Your task to perform on an android device: change the clock display to digital Image 0: 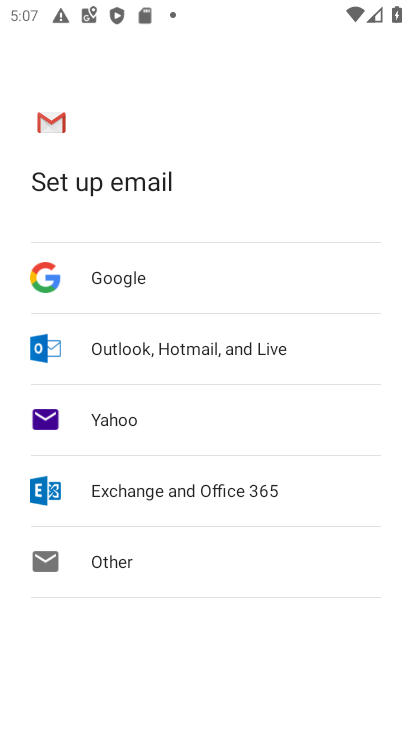
Step 0: press home button
Your task to perform on an android device: change the clock display to digital Image 1: 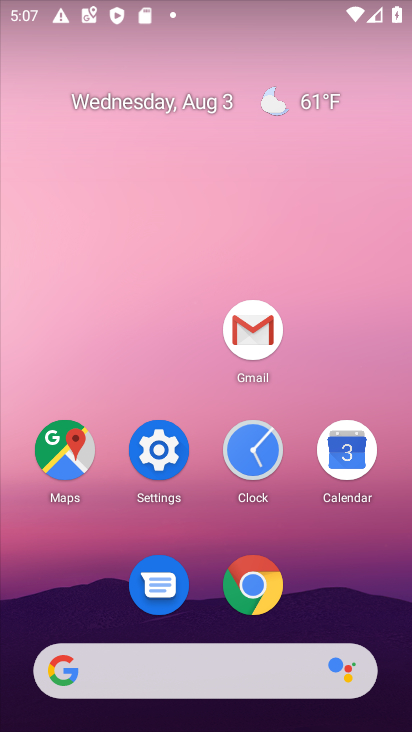
Step 1: click (258, 455)
Your task to perform on an android device: change the clock display to digital Image 2: 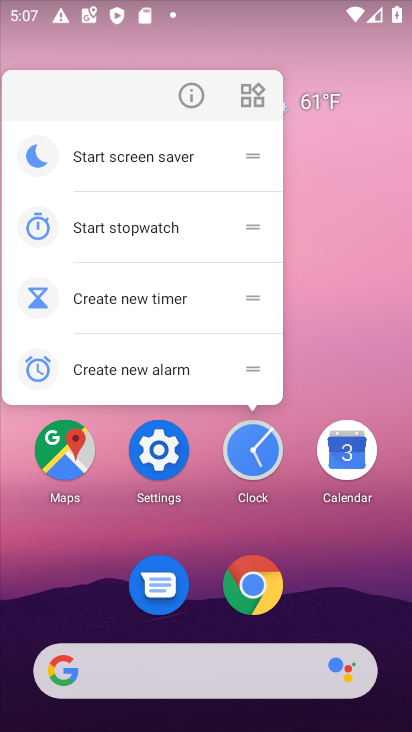
Step 2: click (258, 455)
Your task to perform on an android device: change the clock display to digital Image 3: 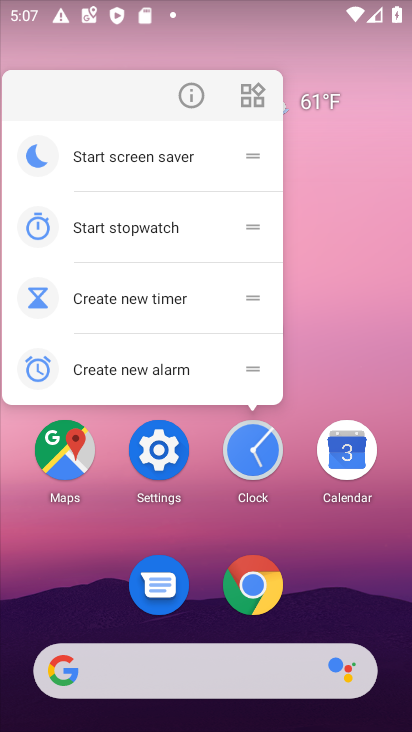
Step 3: click (258, 455)
Your task to perform on an android device: change the clock display to digital Image 4: 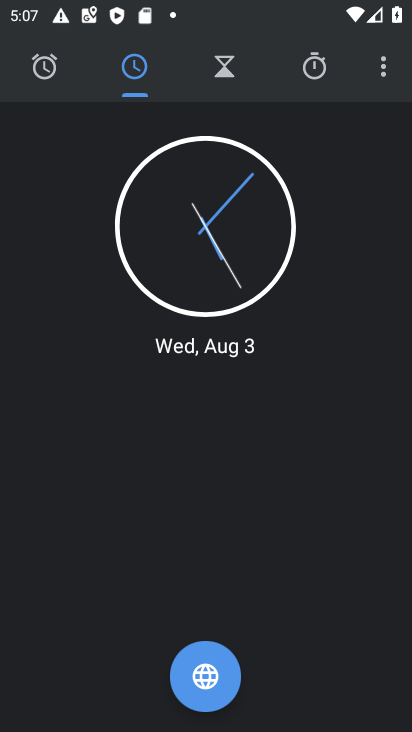
Step 4: click (380, 70)
Your task to perform on an android device: change the clock display to digital Image 5: 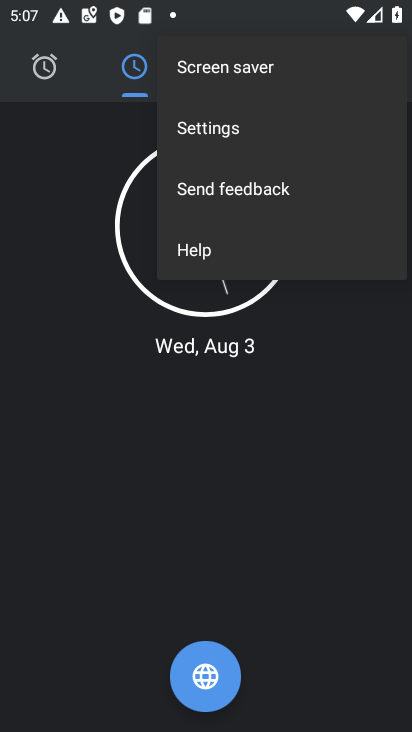
Step 5: click (230, 124)
Your task to perform on an android device: change the clock display to digital Image 6: 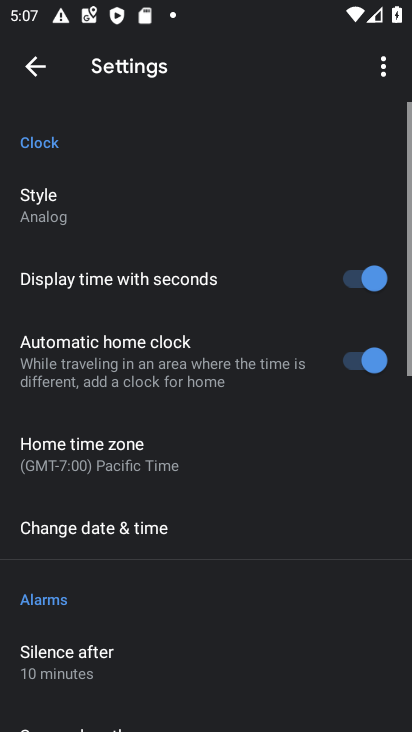
Step 6: click (18, 198)
Your task to perform on an android device: change the clock display to digital Image 7: 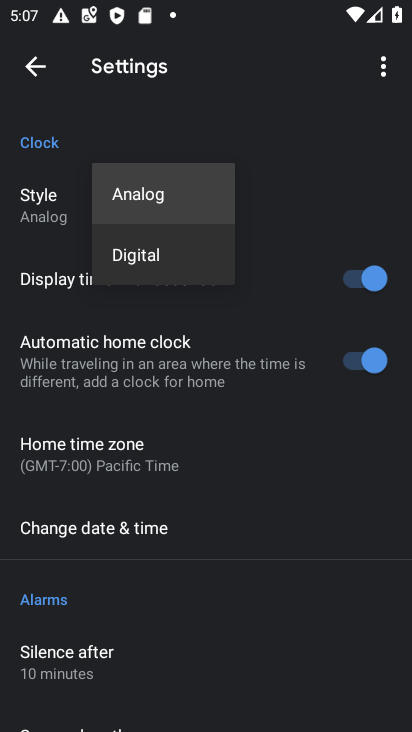
Step 7: click (151, 256)
Your task to perform on an android device: change the clock display to digital Image 8: 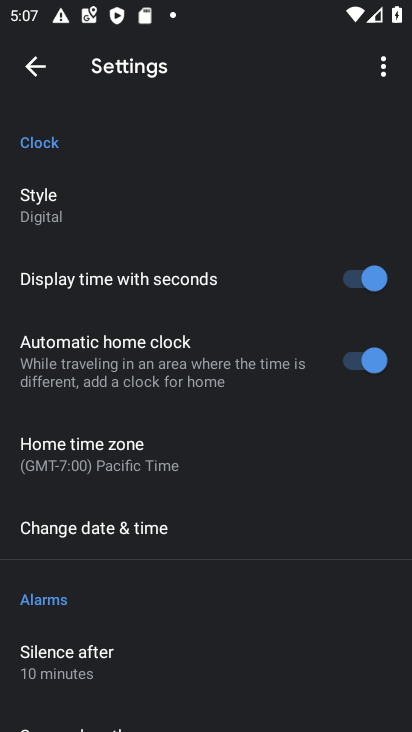
Step 8: task complete